Your task to perform on an android device: What's the latest video from GameXplain? Image 0: 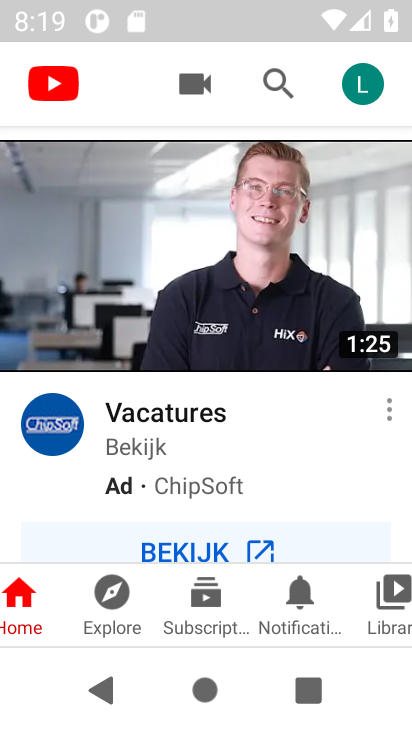
Step 0: press home button
Your task to perform on an android device: What's the latest video from GameXplain? Image 1: 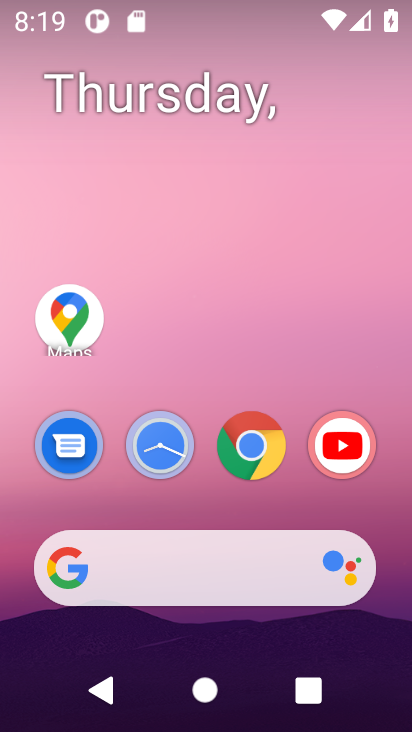
Step 1: drag from (206, 514) to (221, 75)
Your task to perform on an android device: What's the latest video from GameXplain? Image 2: 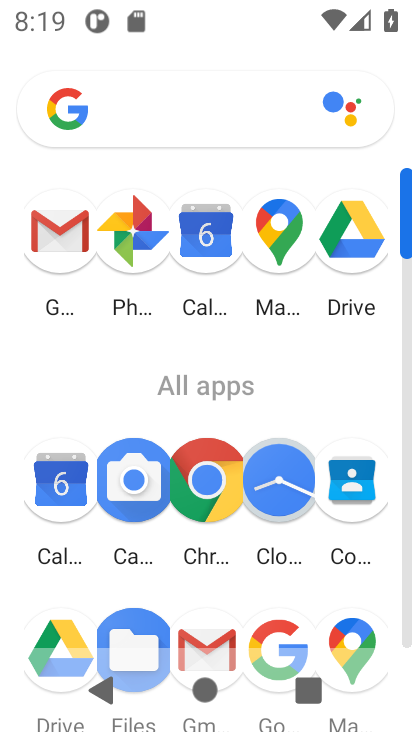
Step 2: press home button
Your task to perform on an android device: What's the latest video from GameXplain? Image 3: 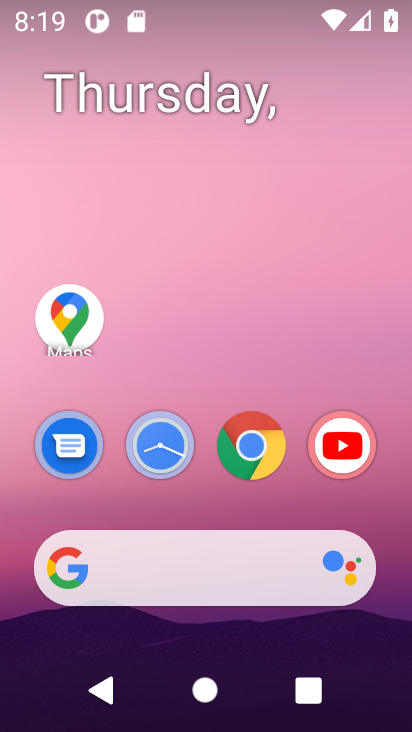
Step 3: click (330, 451)
Your task to perform on an android device: What's the latest video from GameXplain? Image 4: 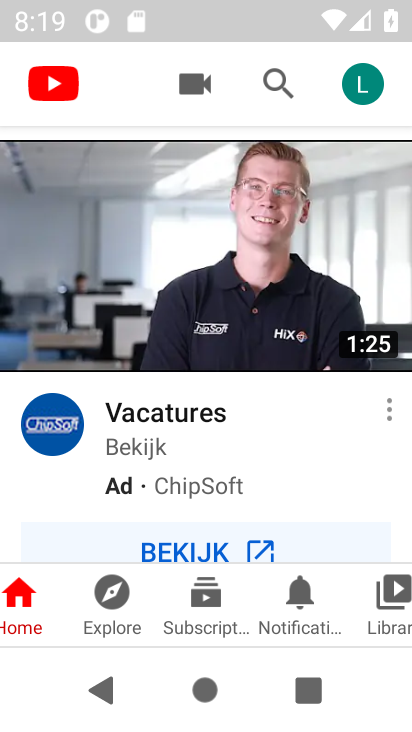
Step 4: click (281, 109)
Your task to perform on an android device: What's the latest video from GameXplain? Image 5: 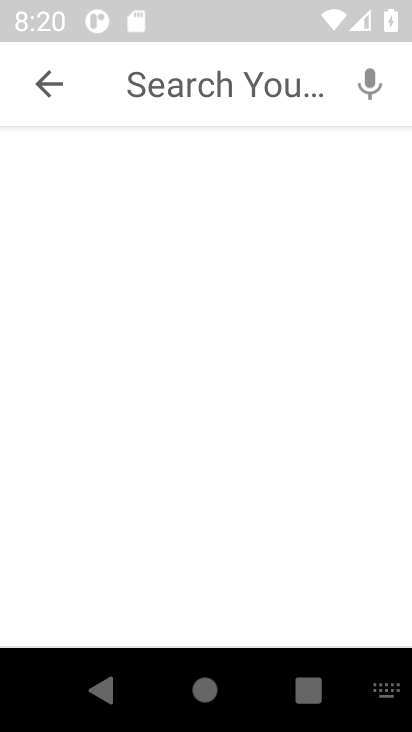
Step 5: type "latest video of game xplain"
Your task to perform on an android device: What's the latest video from GameXplain? Image 6: 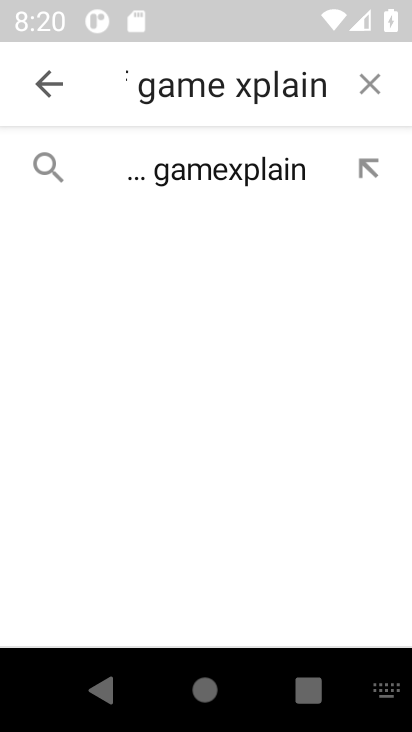
Step 6: click (260, 172)
Your task to perform on an android device: What's the latest video from GameXplain? Image 7: 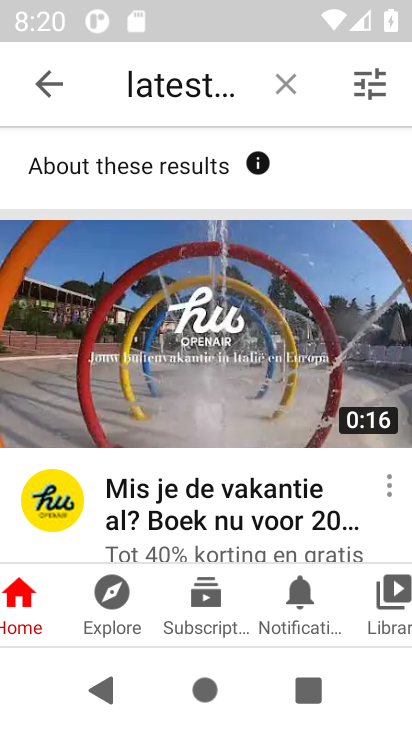
Step 7: click (275, 343)
Your task to perform on an android device: What's the latest video from GameXplain? Image 8: 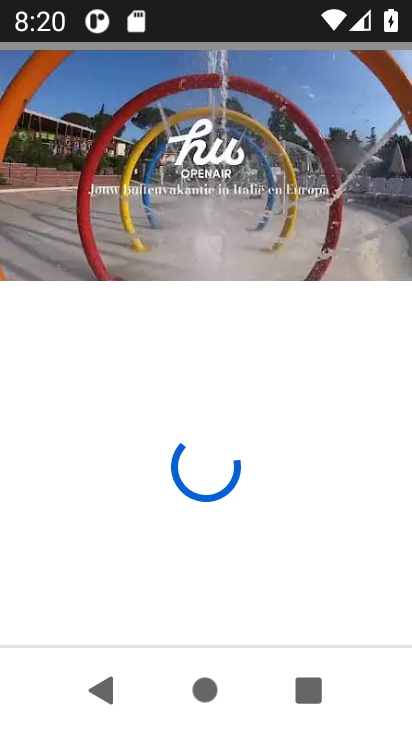
Step 8: task complete